Your task to perform on an android device: check battery use Image 0: 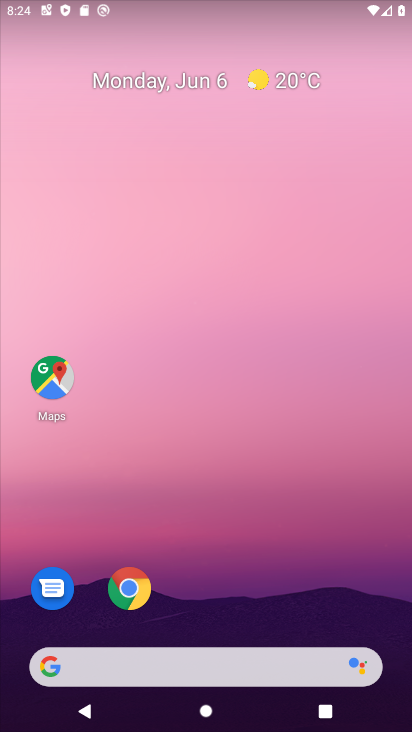
Step 0: drag from (125, 625) to (272, 168)
Your task to perform on an android device: check battery use Image 1: 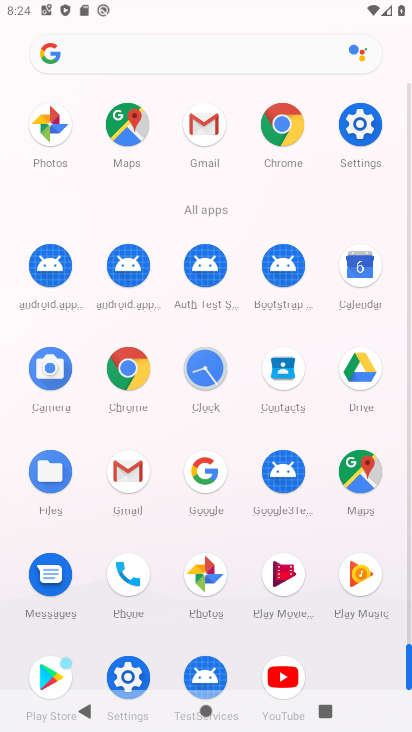
Step 1: click (133, 664)
Your task to perform on an android device: check battery use Image 2: 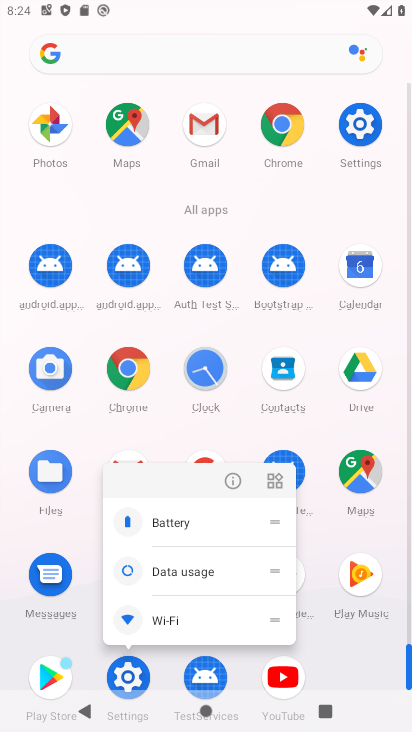
Step 2: click (124, 683)
Your task to perform on an android device: check battery use Image 3: 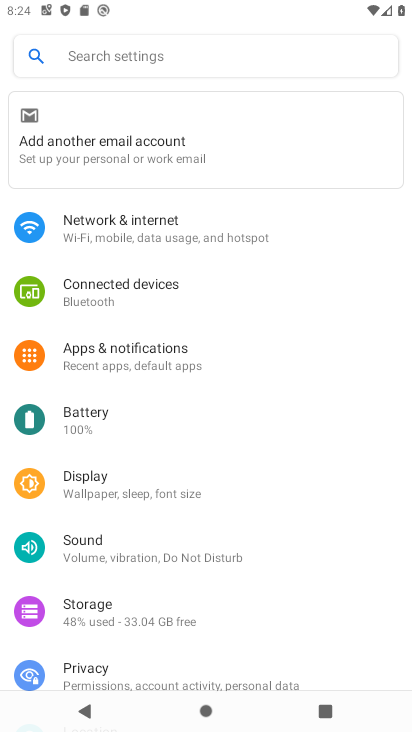
Step 3: click (117, 406)
Your task to perform on an android device: check battery use Image 4: 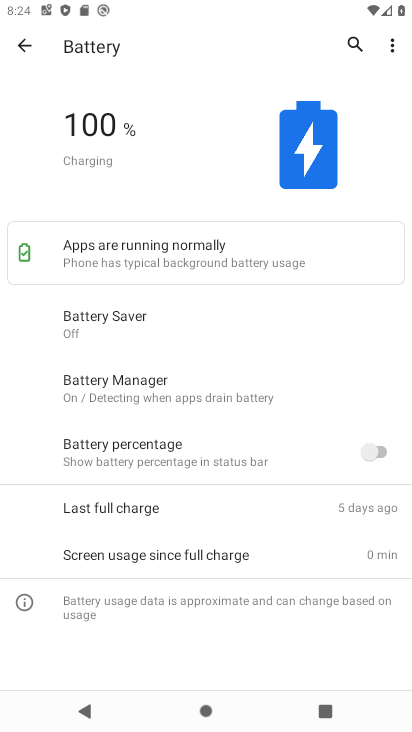
Step 4: click (399, 50)
Your task to perform on an android device: check battery use Image 5: 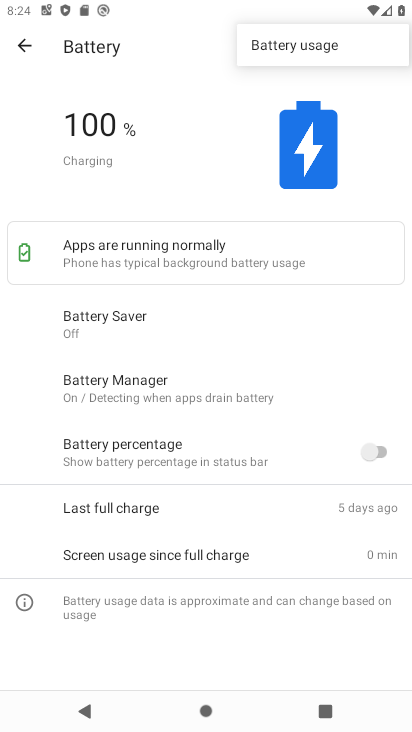
Step 5: click (348, 25)
Your task to perform on an android device: check battery use Image 6: 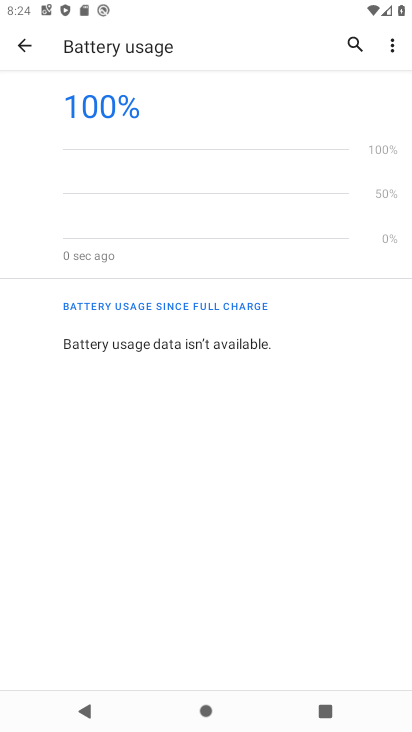
Step 6: task complete